Your task to perform on an android device: toggle notifications settings in the gmail app Image 0: 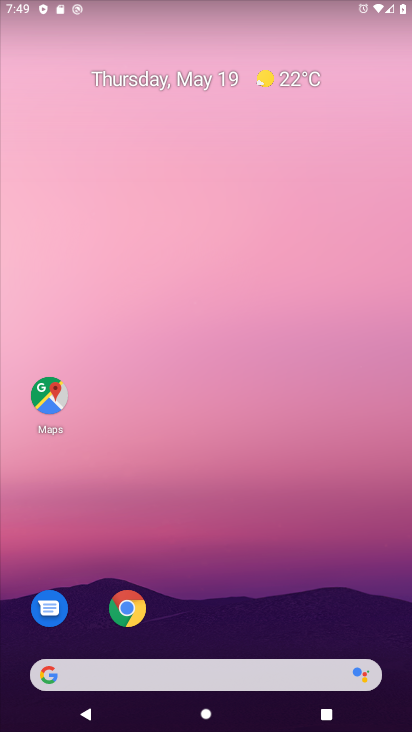
Step 0: drag from (162, 612) to (317, 28)
Your task to perform on an android device: toggle notifications settings in the gmail app Image 1: 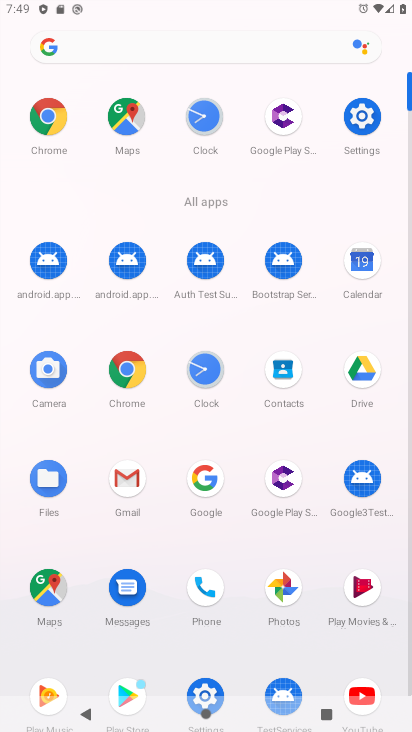
Step 1: click (128, 477)
Your task to perform on an android device: toggle notifications settings in the gmail app Image 2: 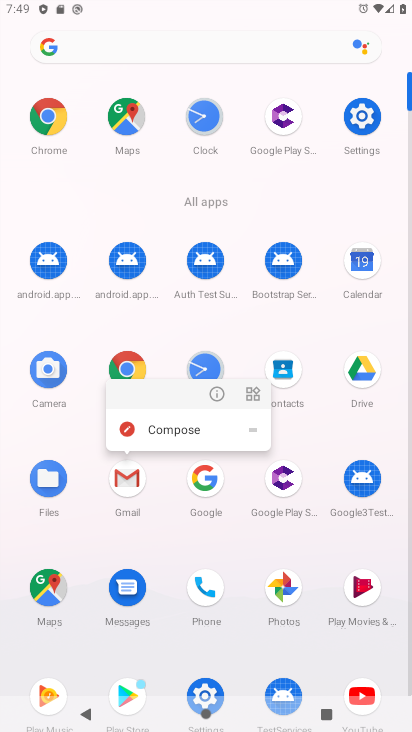
Step 2: click (225, 390)
Your task to perform on an android device: toggle notifications settings in the gmail app Image 3: 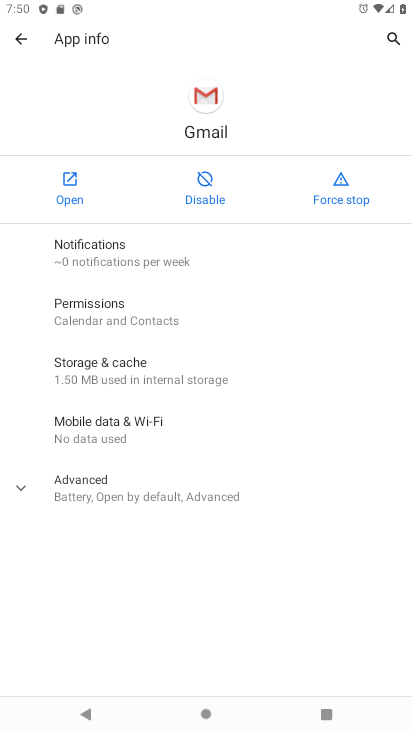
Step 3: click (192, 243)
Your task to perform on an android device: toggle notifications settings in the gmail app Image 4: 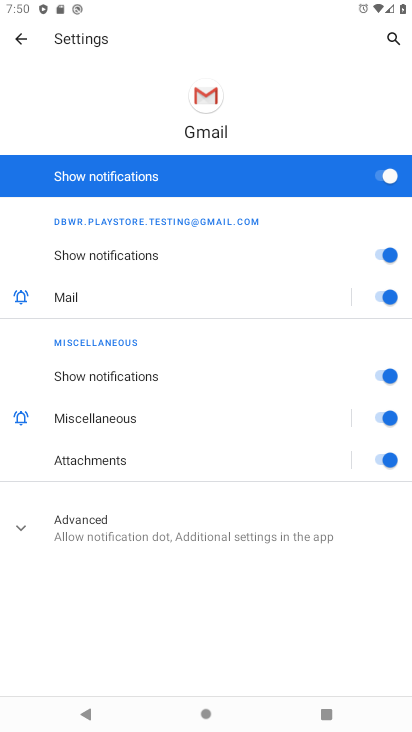
Step 4: click (390, 179)
Your task to perform on an android device: toggle notifications settings in the gmail app Image 5: 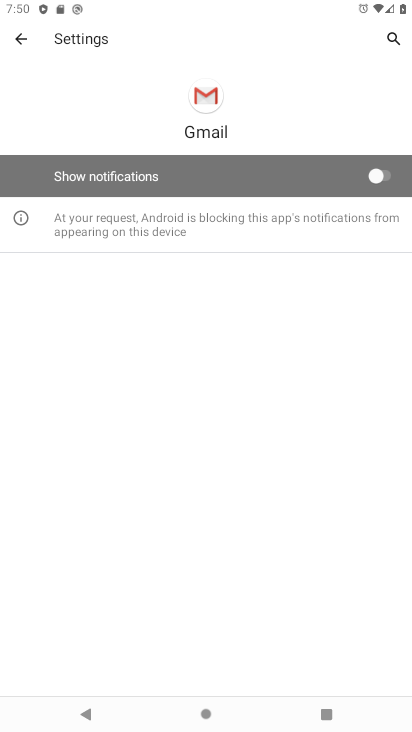
Step 5: task complete